Your task to perform on an android device: turn off data saver in the chrome app Image 0: 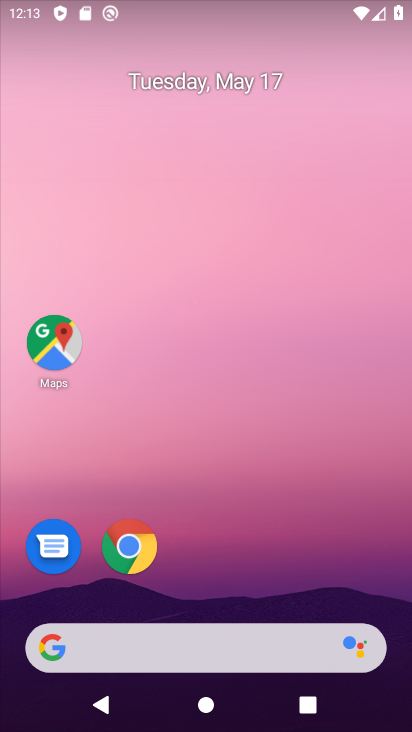
Step 0: click (133, 546)
Your task to perform on an android device: turn off data saver in the chrome app Image 1: 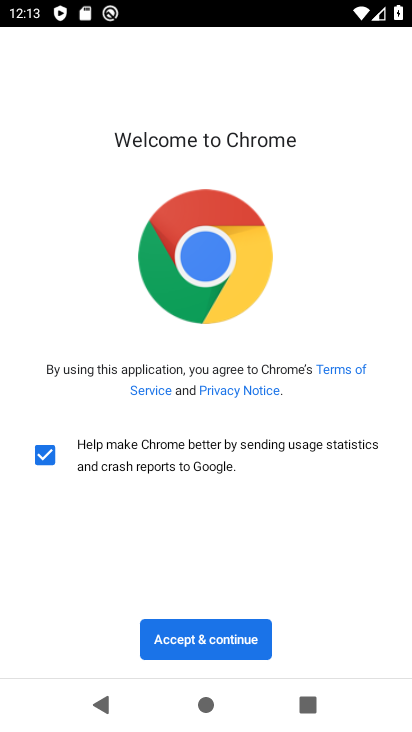
Step 1: click (233, 618)
Your task to perform on an android device: turn off data saver in the chrome app Image 2: 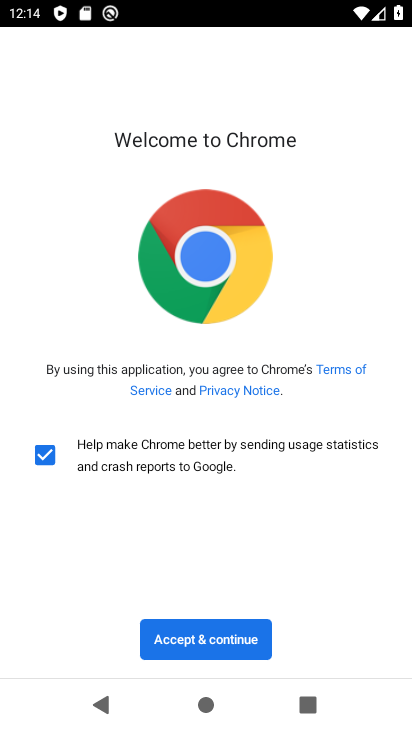
Step 2: click (215, 632)
Your task to perform on an android device: turn off data saver in the chrome app Image 3: 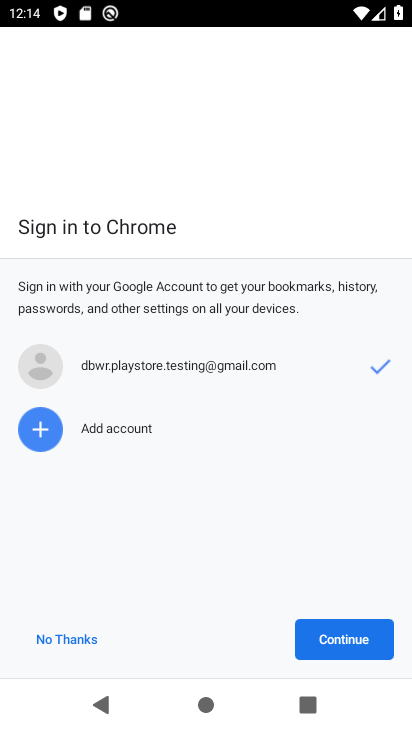
Step 3: click (338, 645)
Your task to perform on an android device: turn off data saver in the chrome app Image 4: 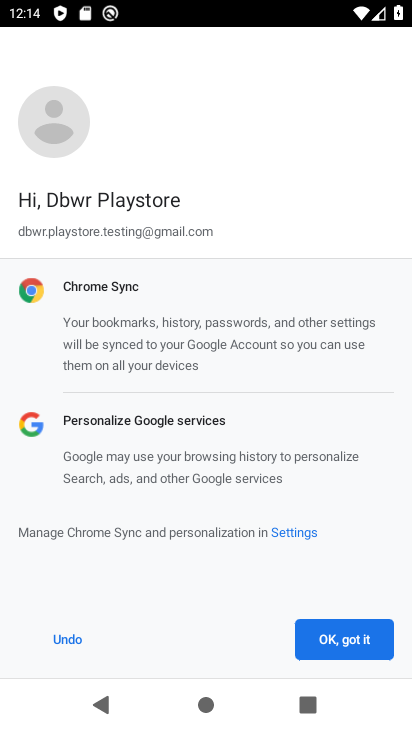
Step 4: click (337, 642)
Your task to perform on an android device: turn off data saver in the chrome app Image 5: 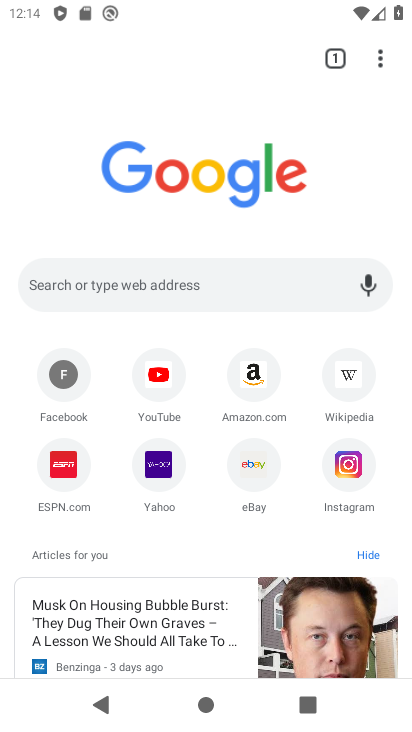
Step 5: click (381, 59)
Your task to perform on an android device: turn off data saver in the chrome app Image 6: 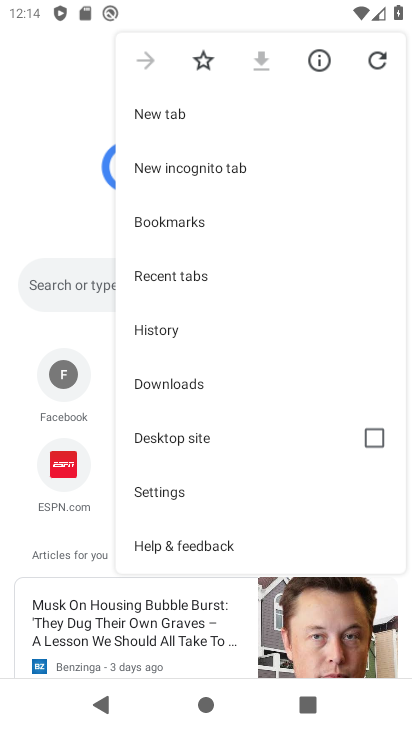
Step 6: click (193, 493)
Your task to perform on an android device: turn off data saver in the chrome app Image 7: 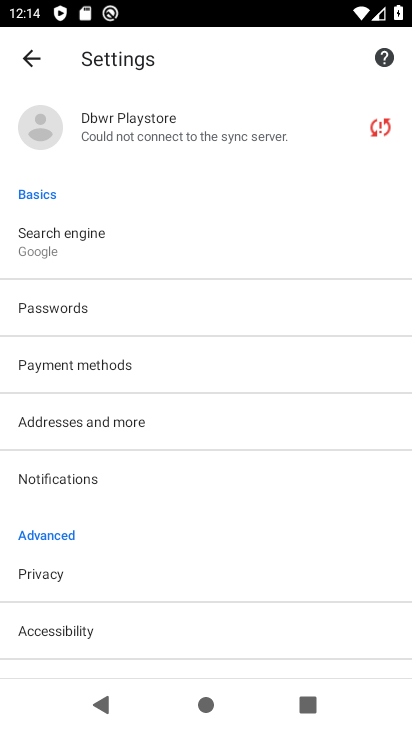
Step 7: drag from (162, 562) to (170, 324)
Your task to perform on an android device: turn off data saver in the chrome app Image 8: 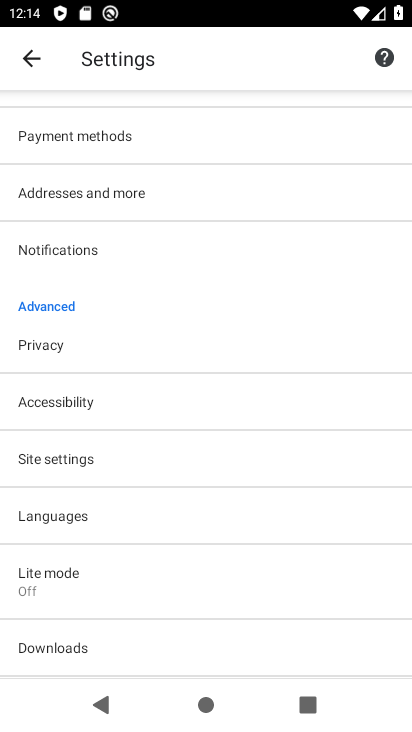
Step 8: click (105, 563)
Your task to perform on an android device: turn off data saver in the chrome app Image 9: 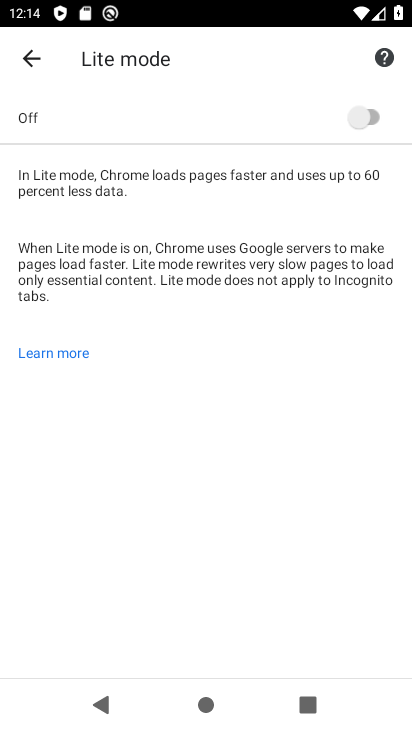
Step 9: task complete